Your task to perform on an android device: turn on the 24-hour format for clock Image 0: 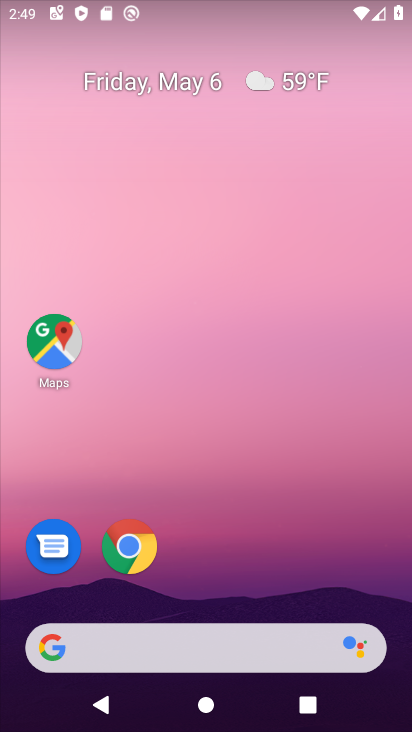
Step 0: drag from (250, 586) to (255, 157)
Your task to perform on an android device: turn on the 24-hour format for clock Image 1: 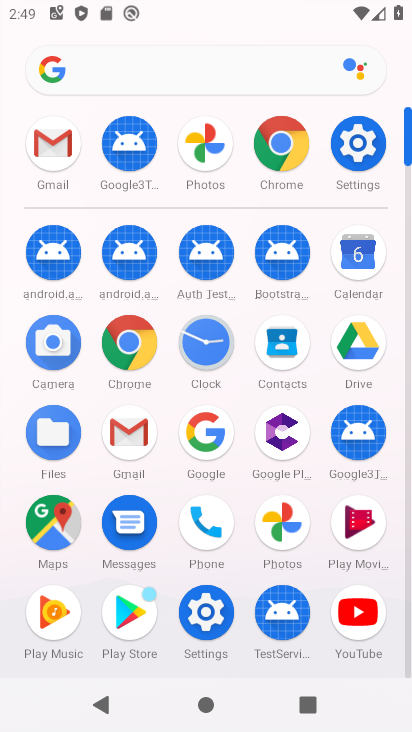
Step 1: click (216, 349)
Your task to perform on an android device: turn on the 24-hour format for clock Image 2: 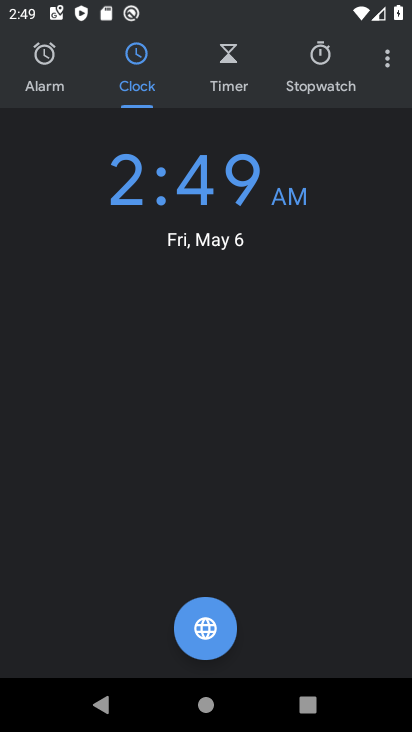
Step 2: click (389, 63)
Your task to perform on an android device: turn on the 24-hour format for clock Image 3: 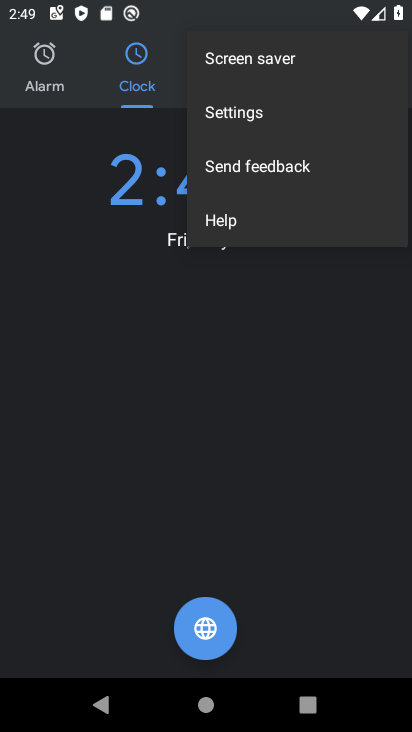
Step 3: click (253, 119)
Your task to perform on an android device: turn on the 24-hour format for clock Image 4: 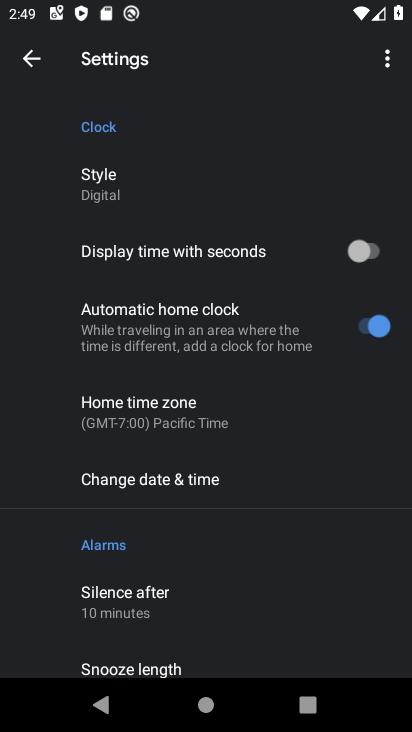
Step 4: click (156, 481)
Your task to perform on an android device: turn on the 24-hour format for clock Image 5: 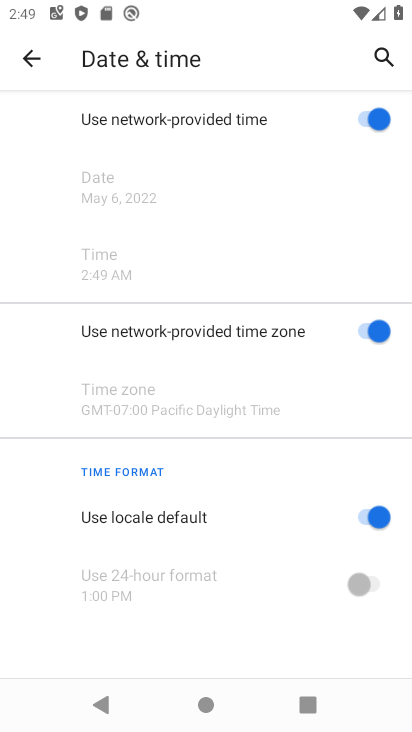
Step 5: click (360, 510)
Your task to perform on an android device: turn on the 24-hour format for clock Image 6: 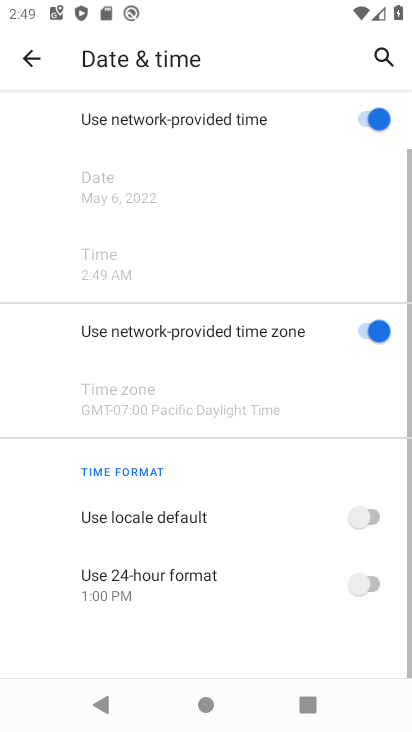
Step 6: click (378, 578)
Your task to perform on an android device: turn on the 24-hour format for clock Image 7: 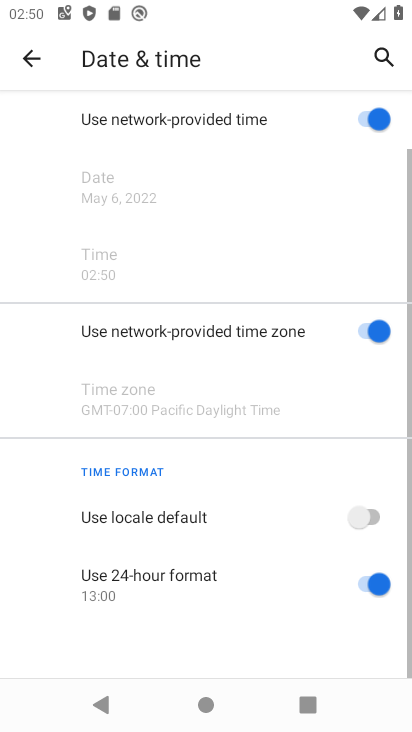
Step 7: task complete